Your task to perform on an android device: What is the recent news? Image 0: 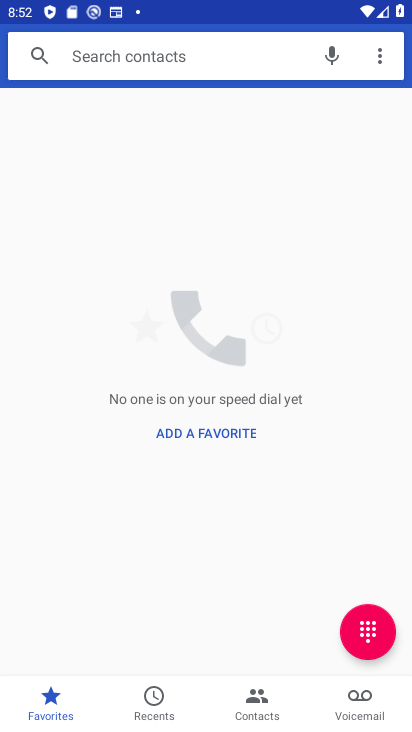
Step 0: press back button
Your task to perform on an android device: What is the recent news? Image 1: 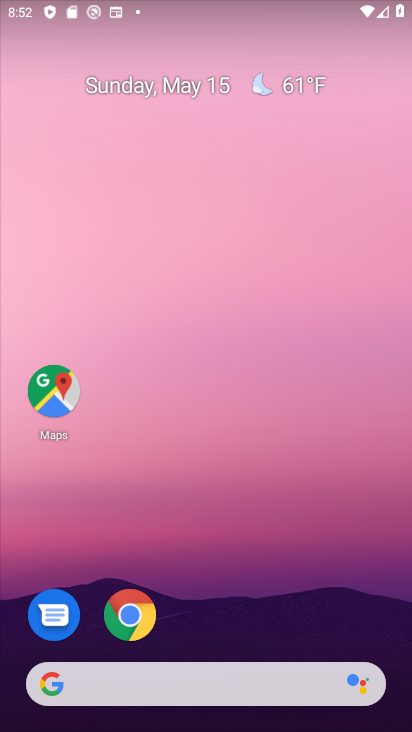
Step 1: drag from (276, 595) to (202, 65)
Your task to perform on an android device: What is the recent news? Image 2: 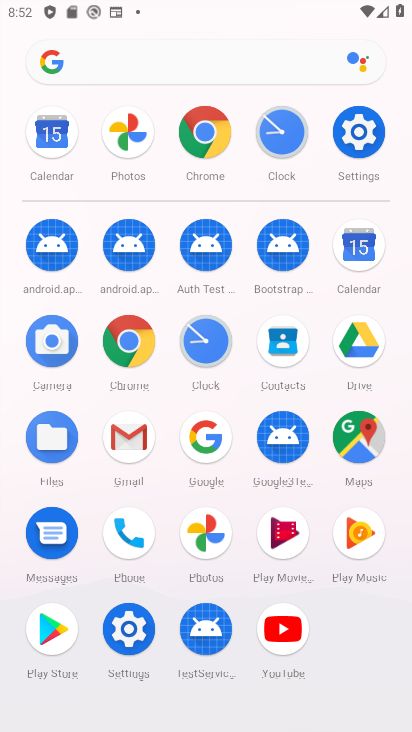
Step 2: drag from (10, 562) to (5, 389)
Your task to perform on an android device: What is the recent news? Image 3: 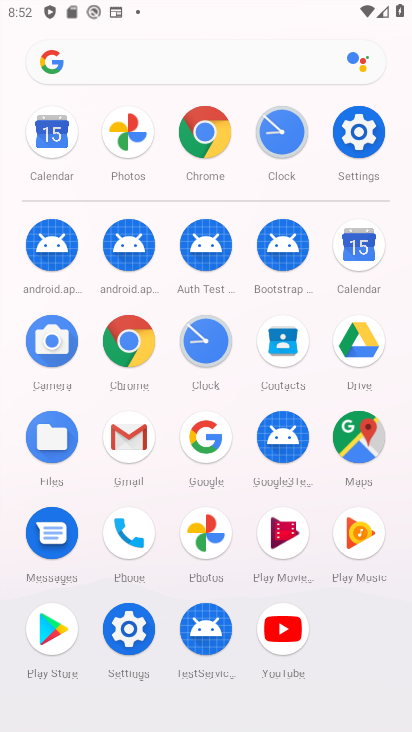
Step 3: click (128, 337)
Your task to perform on an android device: What is the recent news? Image 4: 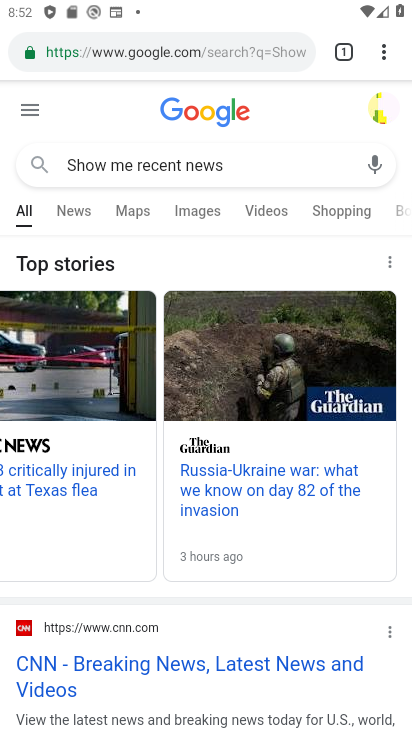
Step 4: task complete